Your task to perform on an android device: change notifications settings Image 0: 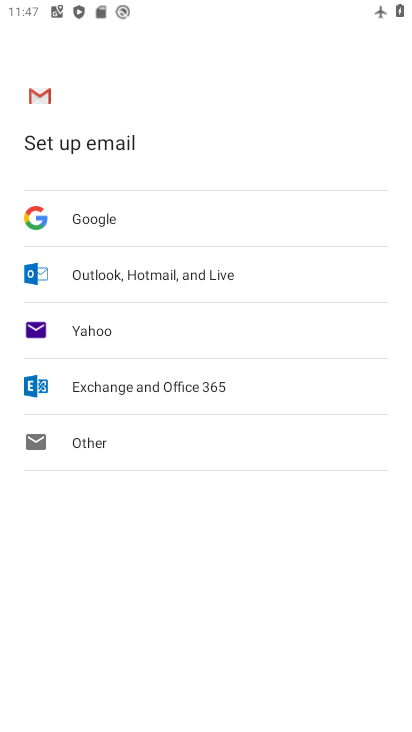
Step 0: press home button
Your task to perform on an android device: change notifications settings Image 1: 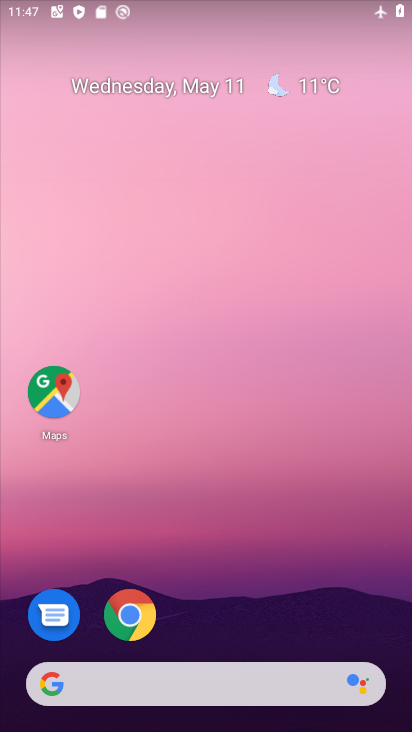
Step 1: drag from (304, 586) to (261, 14)
Your task to perform on an android device: change notifications settings Image 2: 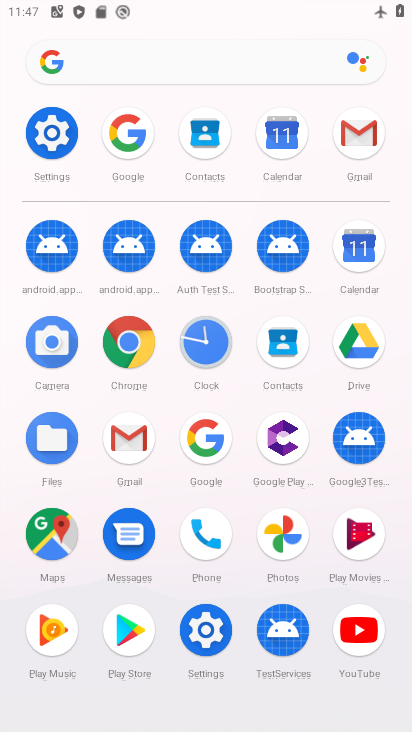
Step 2: click (44, 124)
Your task to perform on an android device: change notifications settings Image 3: 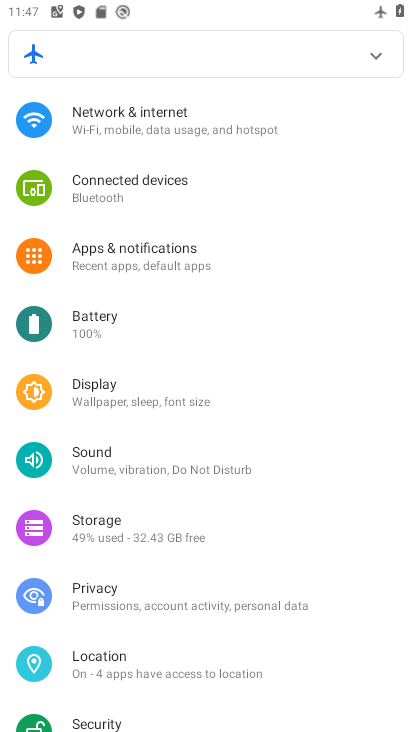
Step 3: click (62, 261)
Your task to perform on an android device: change notifications settings Image 4: 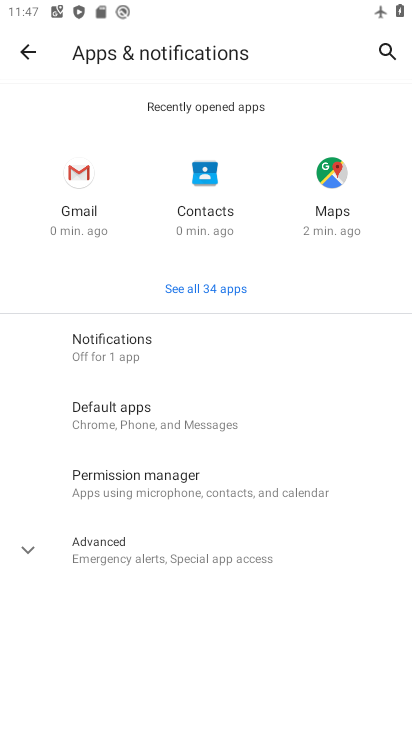
Step 4: click (93, 352)
Your task to perform on an android device: change notifications settings Image 5: 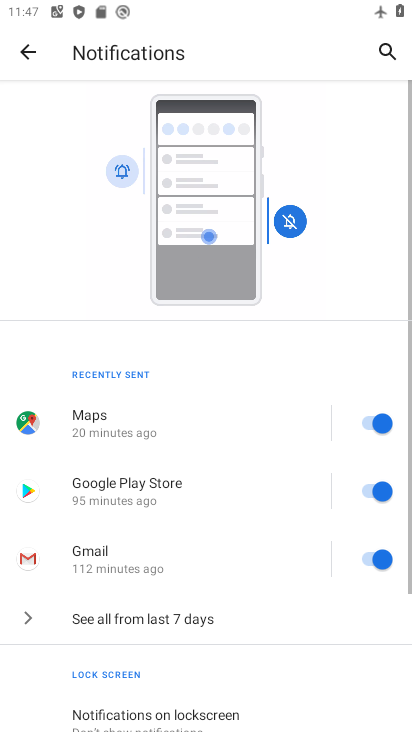
Step 5: drag from (93, 352) to (237, 13)
Your task to perform on an android device: change notifications settings Image 6: 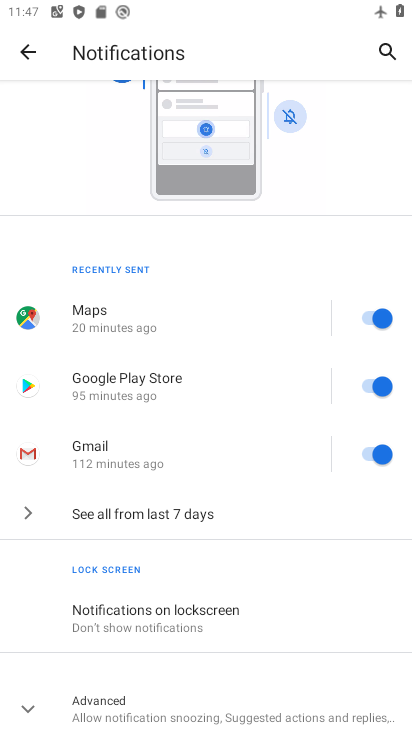
Step 6: click (85, 705)
Your task to perform on an android device: change notifications settings Image 7: 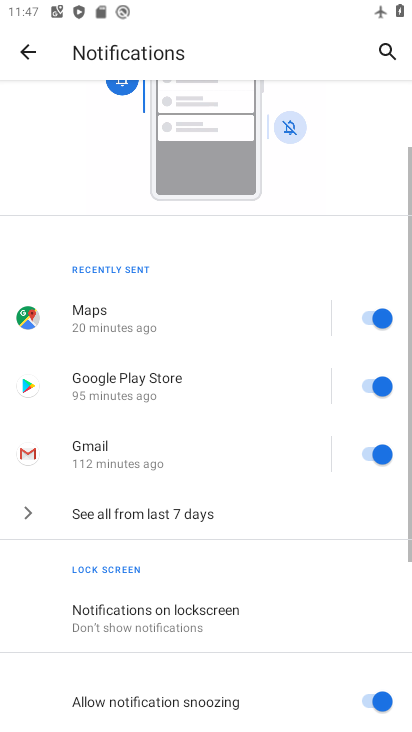
Step 7: drag from (96, 680) to (407, 250)
Your task to perform on an android device: change notifications settings Image 8: 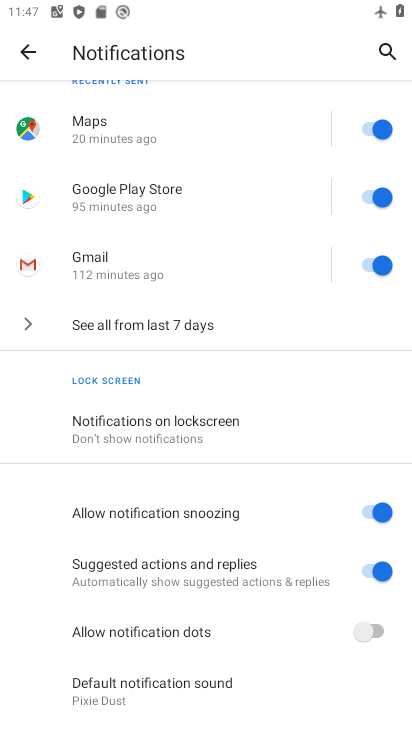
Step 8: click (364, 630)
Your task to perform on an android device: change notifications settings Image 9: 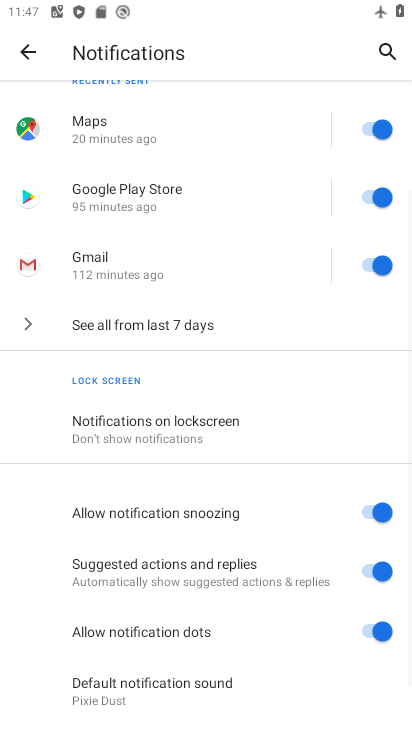
Step 9: task complete